Your task to perform on an android device: toggle priority inbox in the gmail app Image 0: 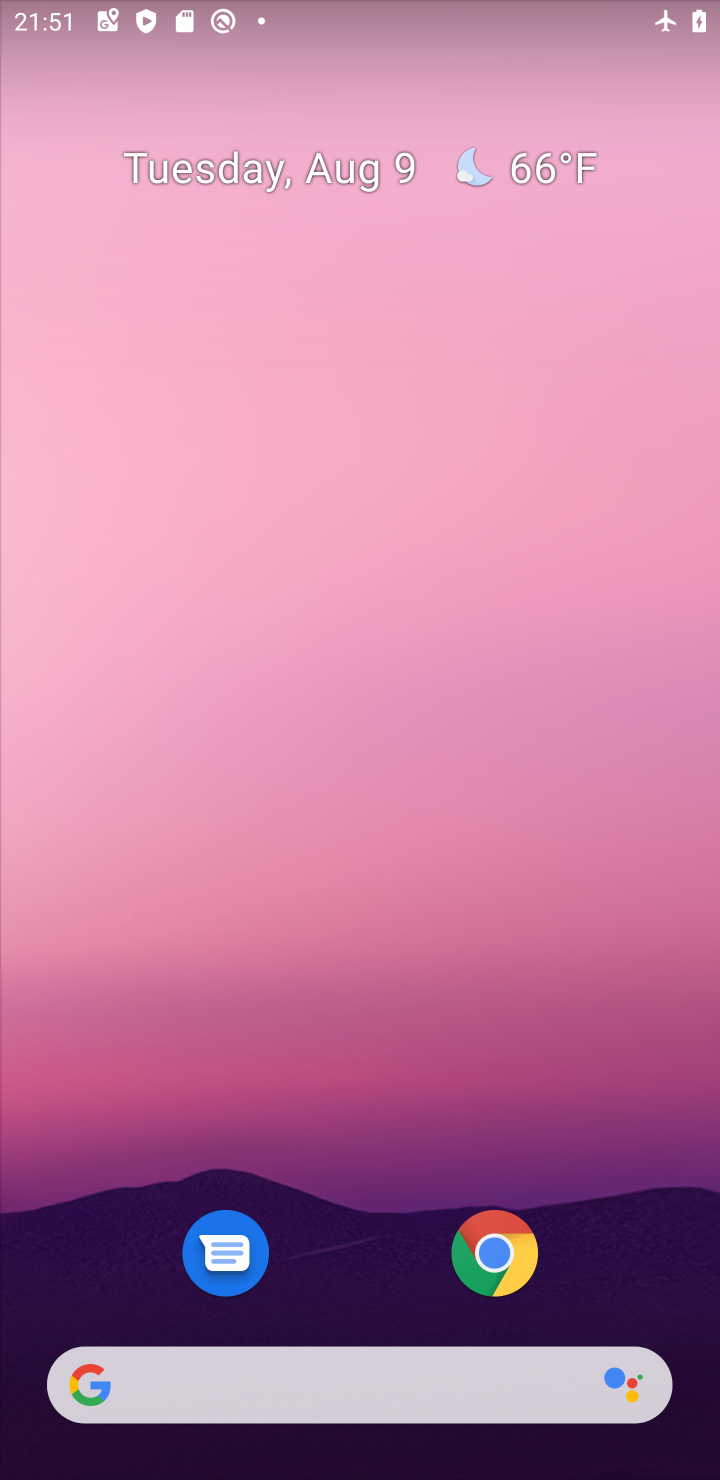
Step 0: drag from (356, 1036) to (371, 184)
Your task to perform on an android device: toggle priority inbox in the gmail app Image 1: 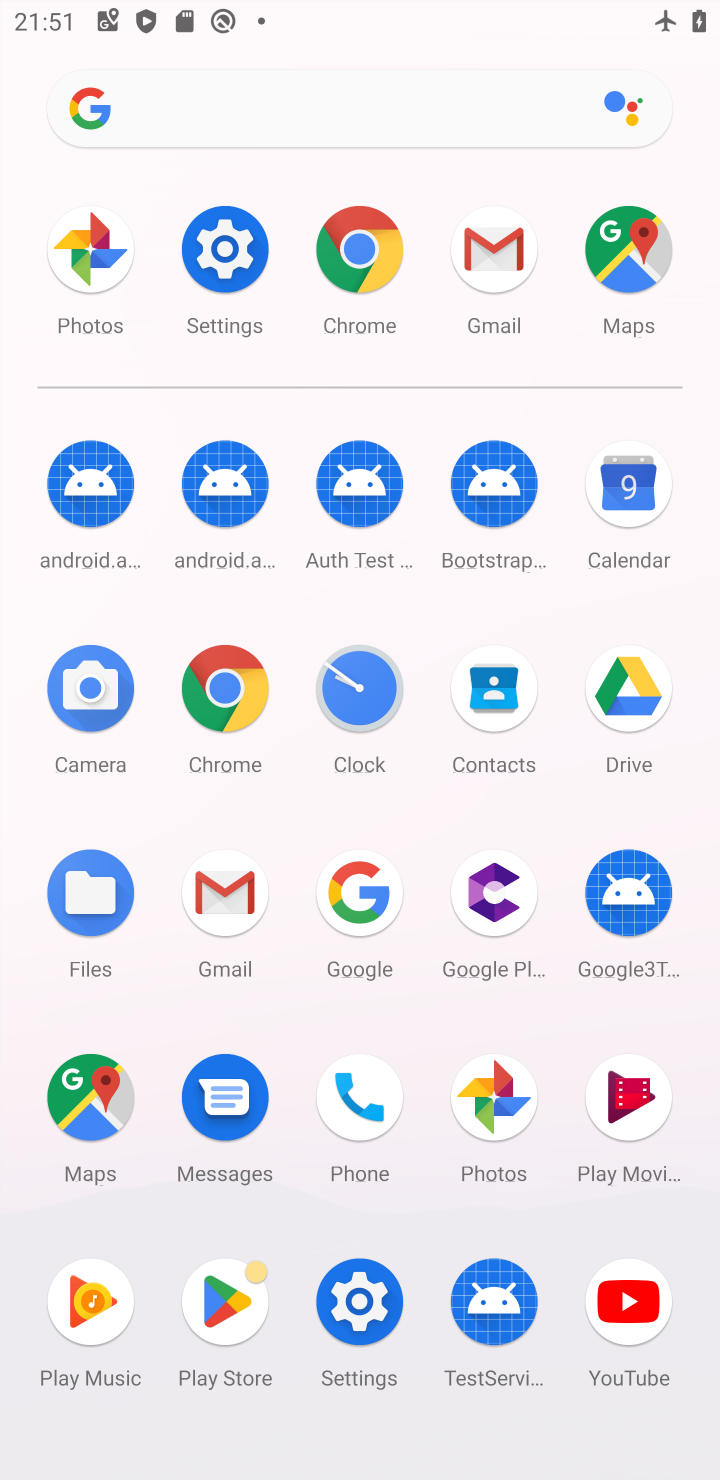
Step 1: click (235, 898)
Your task to perform on an android device: toggle priority inbox in the gmail app Image 2: 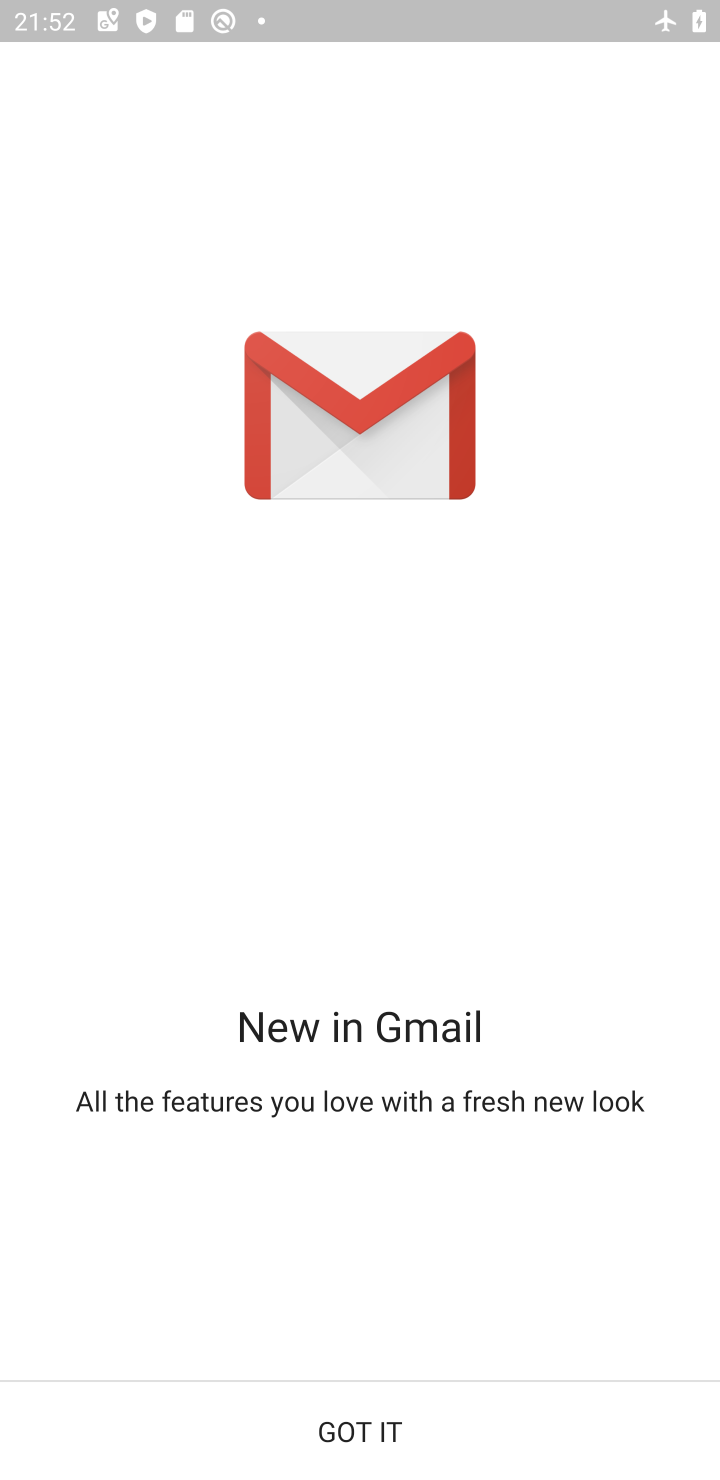
Step 2: click (404, 1425)
Your task to perform on an android device: toggle priority inbox in the gmail app Image 3: 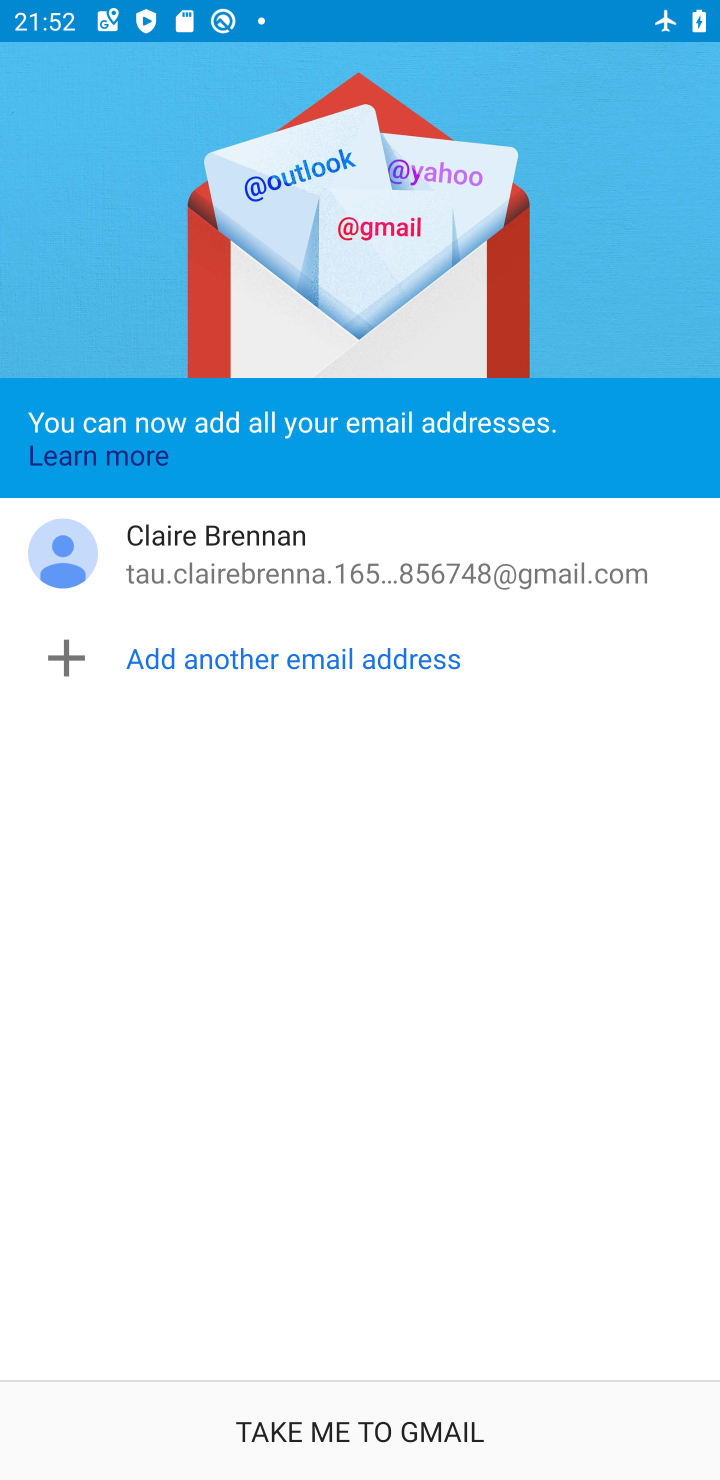
Step 3: click (406, 1417)
Your task to perform on an android device: toggle priority inbox in the gmail app Image 4: 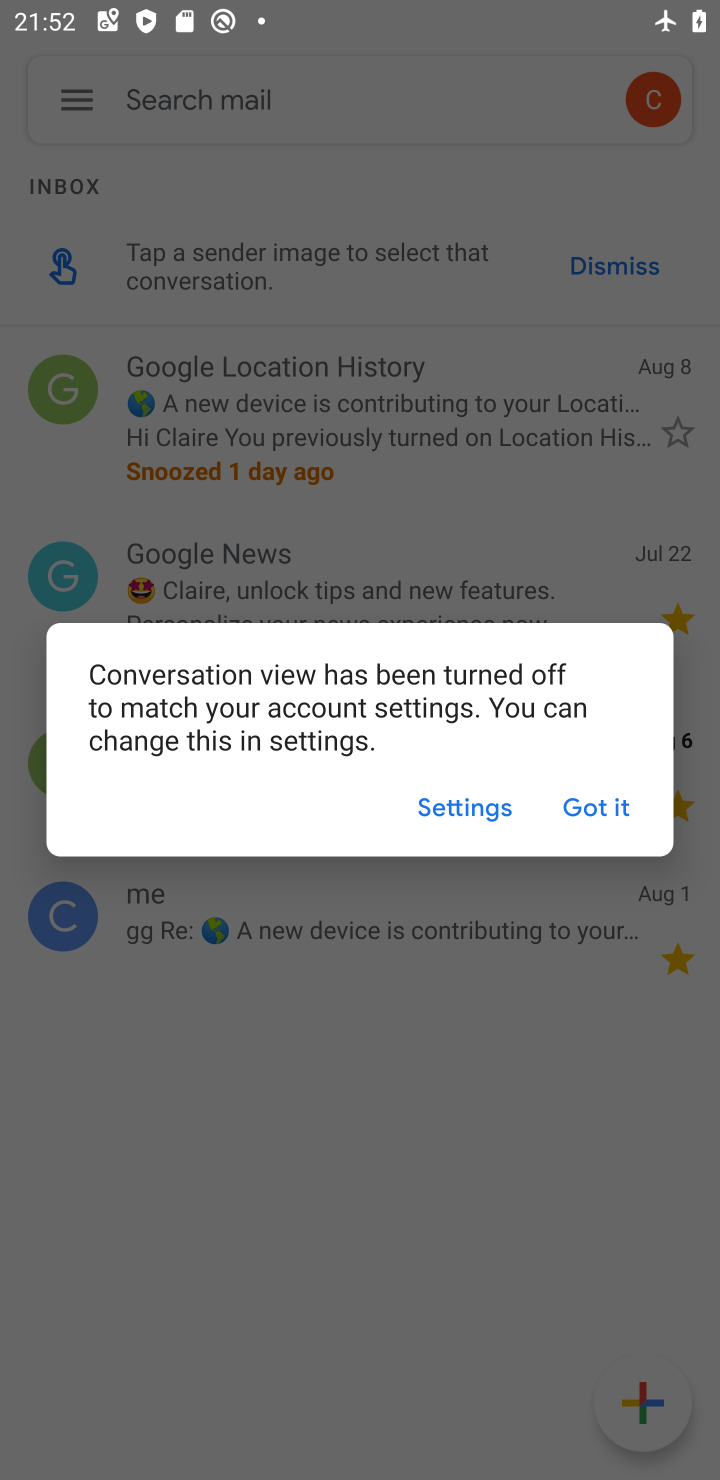
Step 4: click (589, 792)
Your task to perform on an android device: toggle priority inbox in the gmail app Image 5: 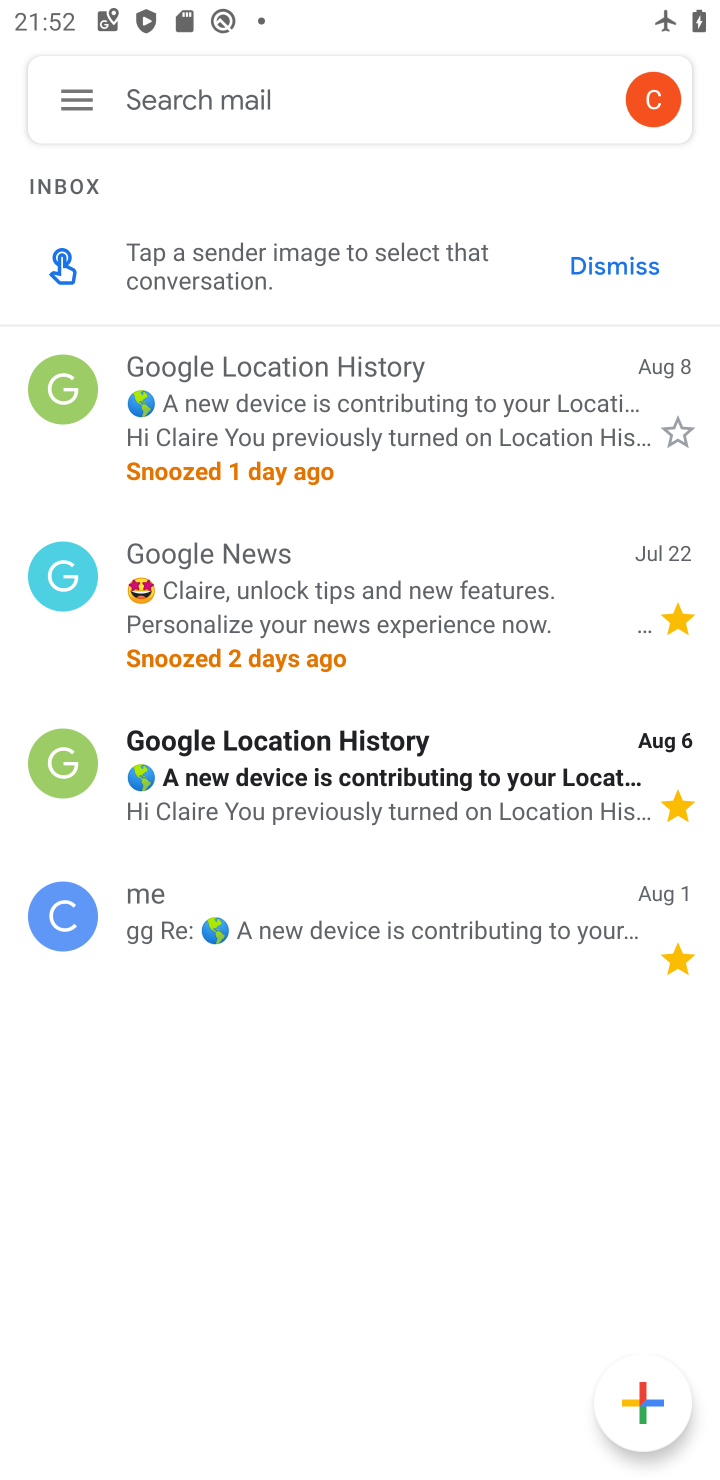
Step 5: click (669, 101)
Your task to perform on an android device: toggle priority inbox in the gmail app Image 6: 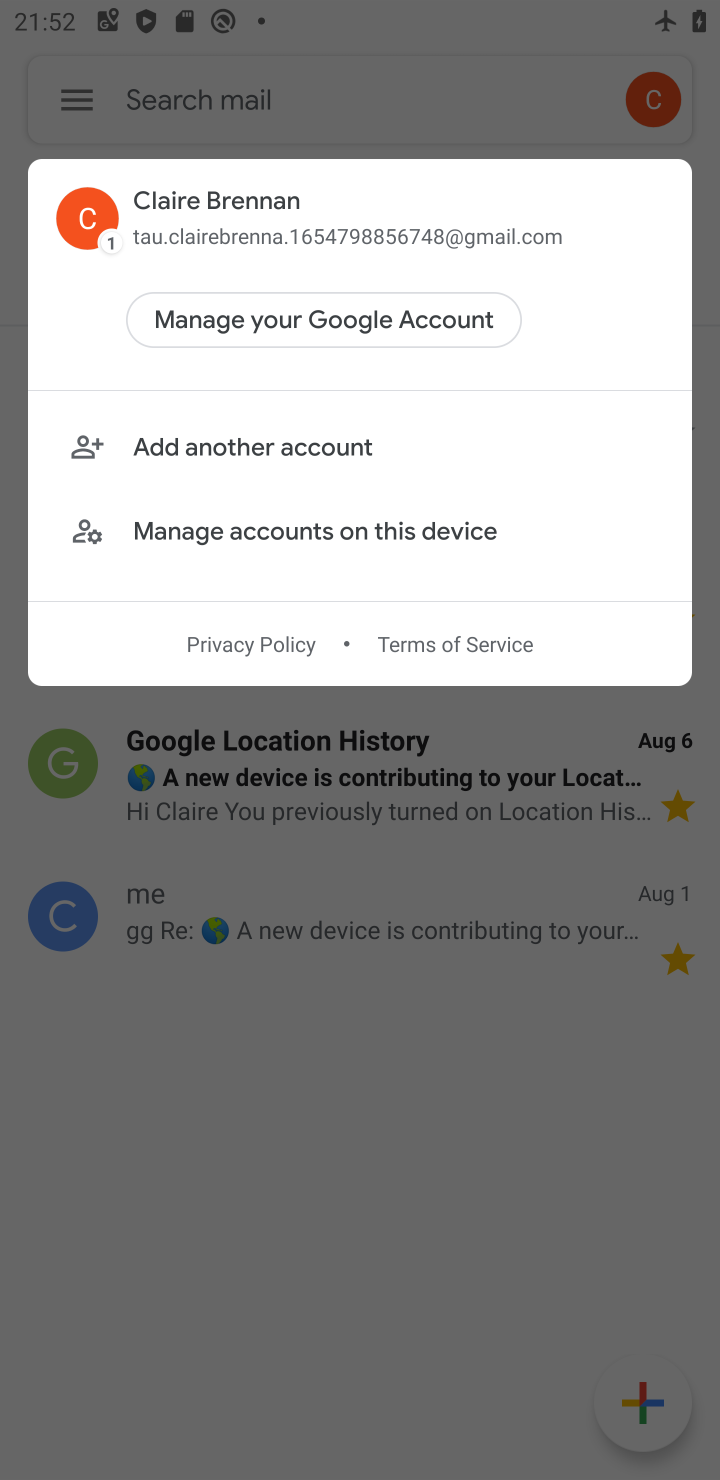
Step 6: click (558, 1045)
Your task to perform on an android device: toggle priority inbox in the gmail app Image 7: 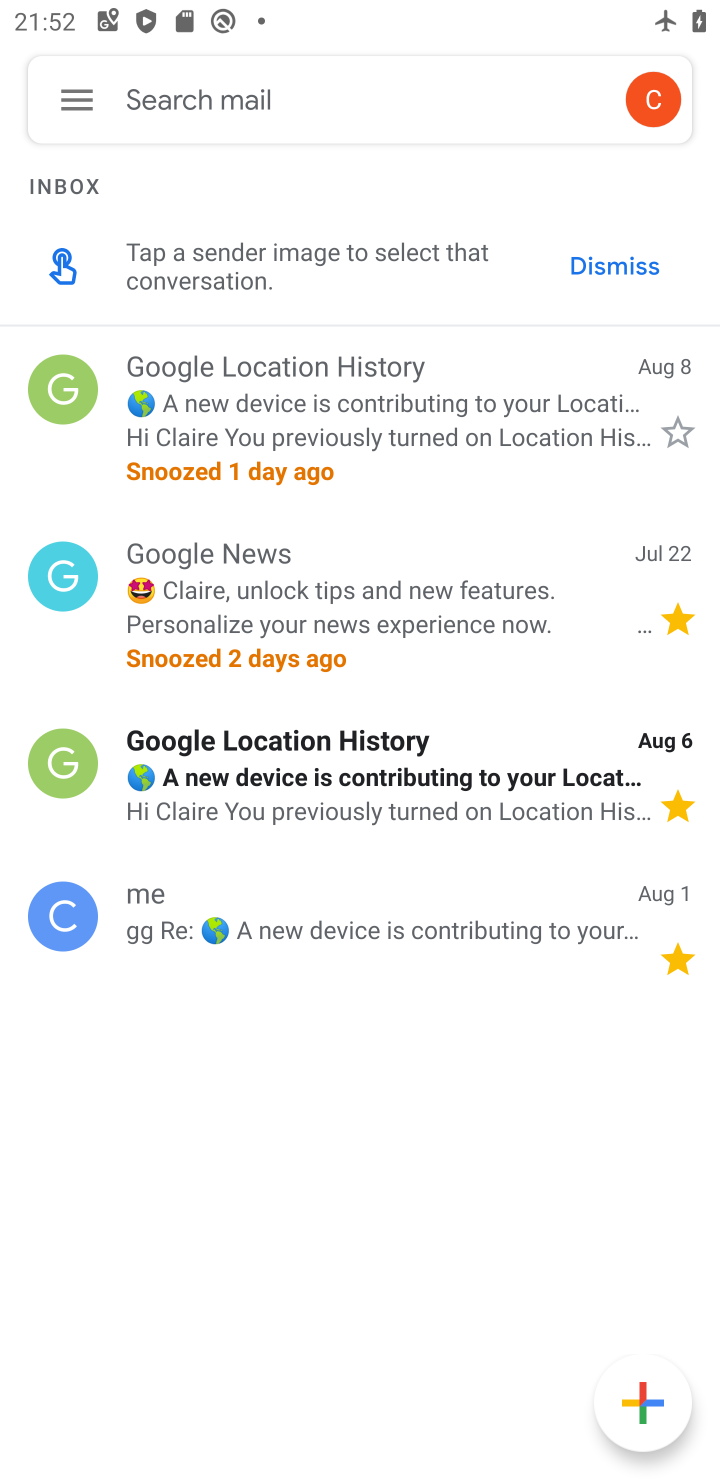
Step 7: click (67, 72)
Your task to perform on an android device: toggle priority inbox in the gmail app Image 8: 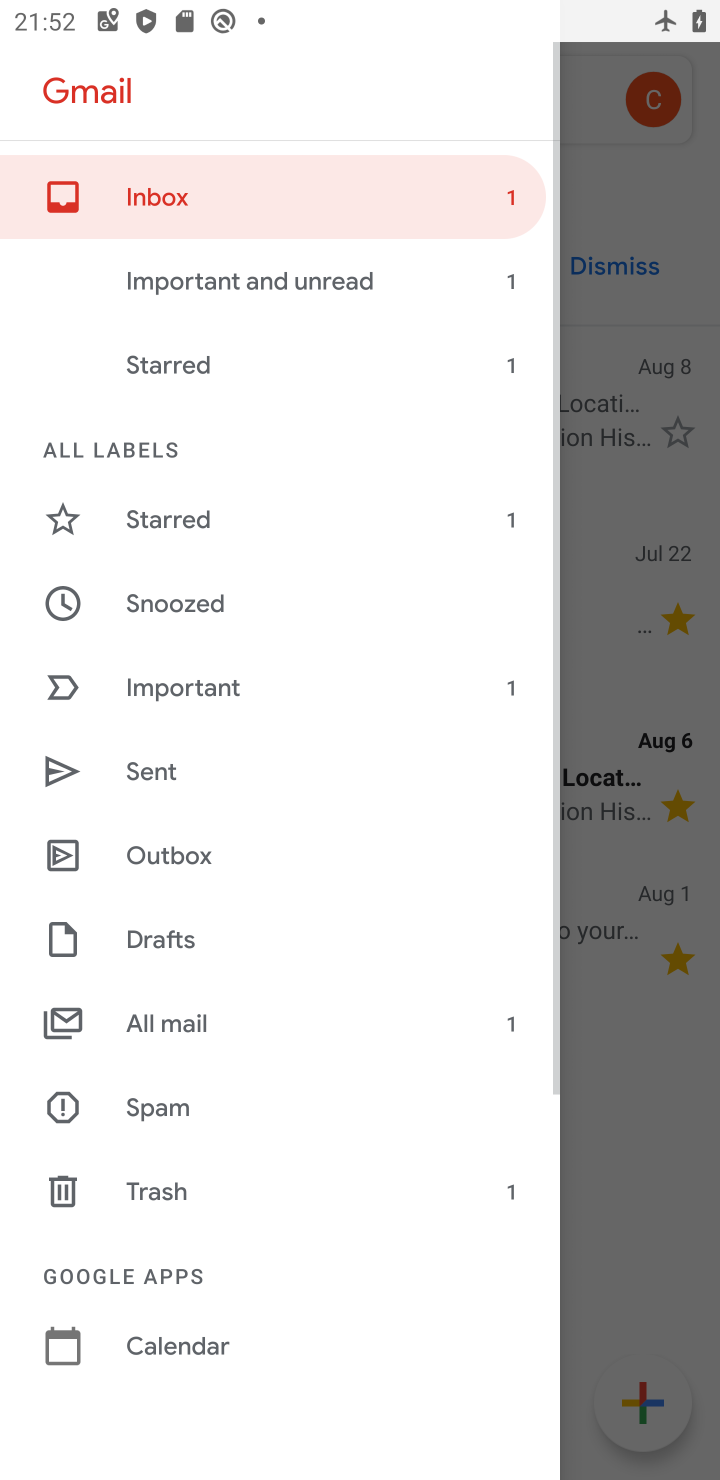
Step 8: drag from (306, 1052) to (470, 367)
Your task to perform on an android device: toggle priority inbox in the gmail app Image 9: 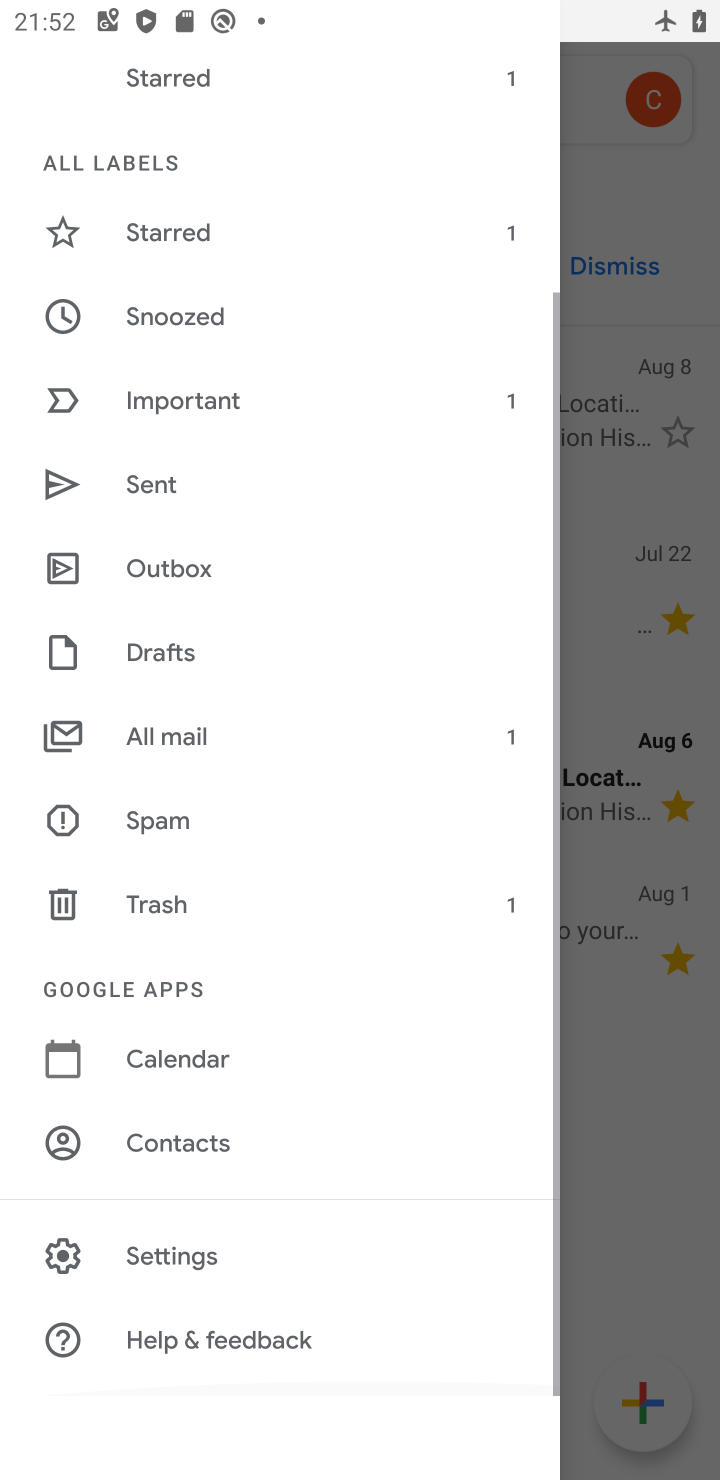
Step 9: click (150, 1264)
Your task to perform on an android device: toggle priority inbox in the gmail app Image 10: 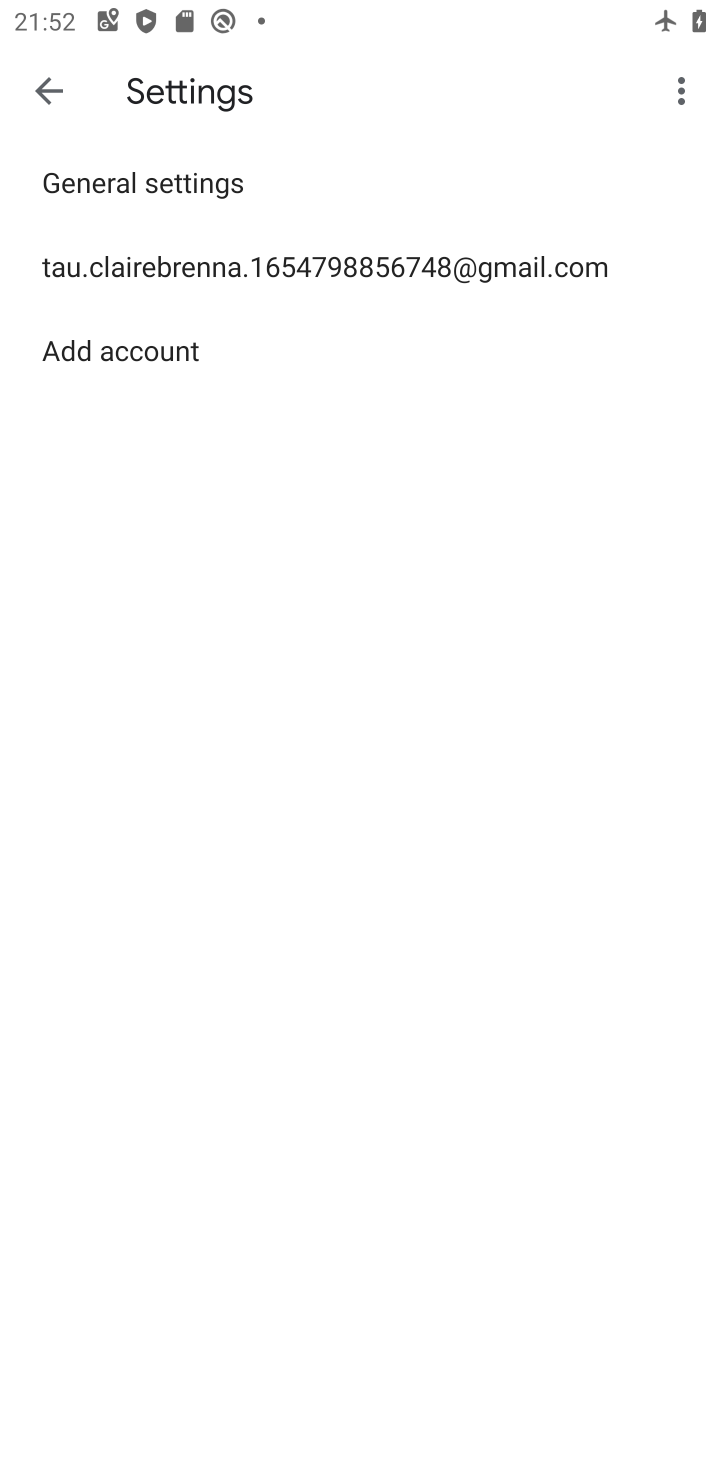
Step 10: click (407, 262)
Your task to perform on an android device: toggle priority inbox in the gmail app Image 11: 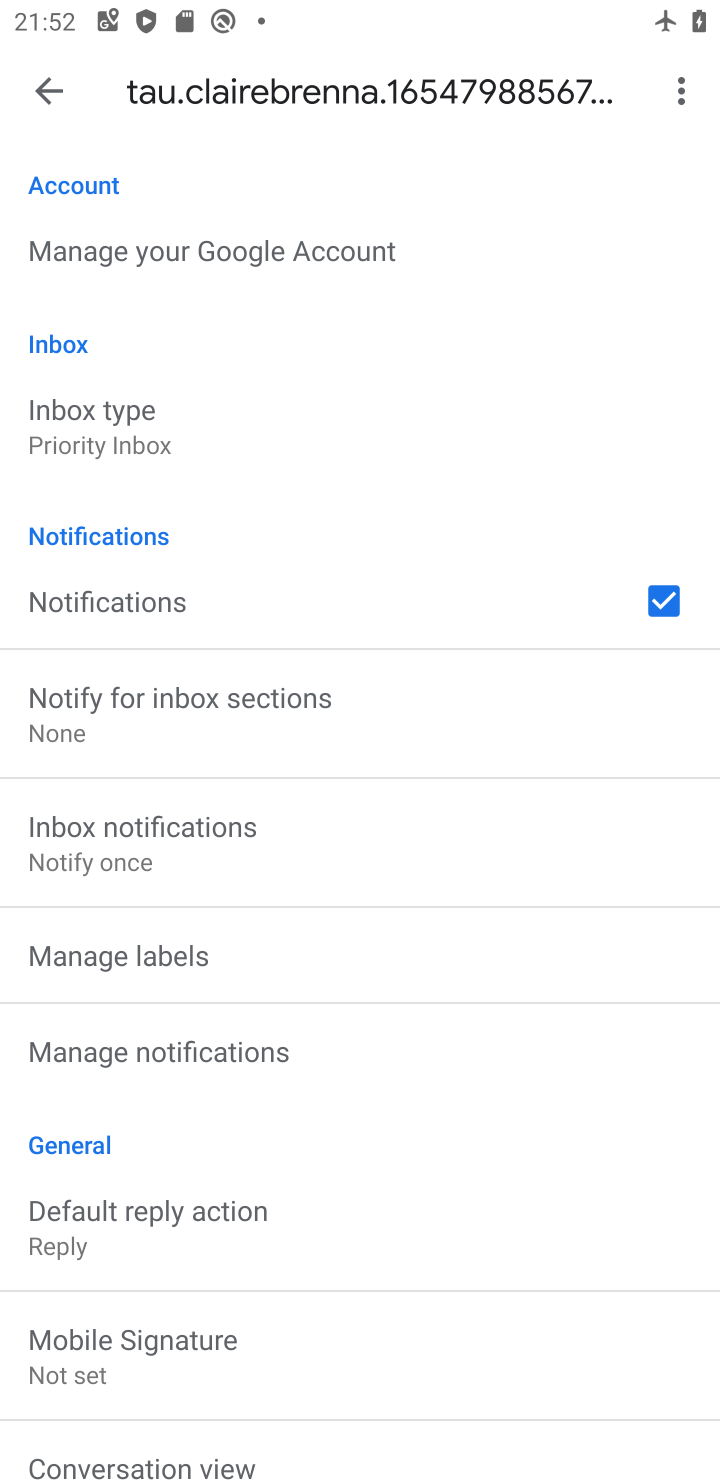
Step 11: click (125, 438)
Your task to perform on an android device: toggle priority inbox in the gmail app Image 12: 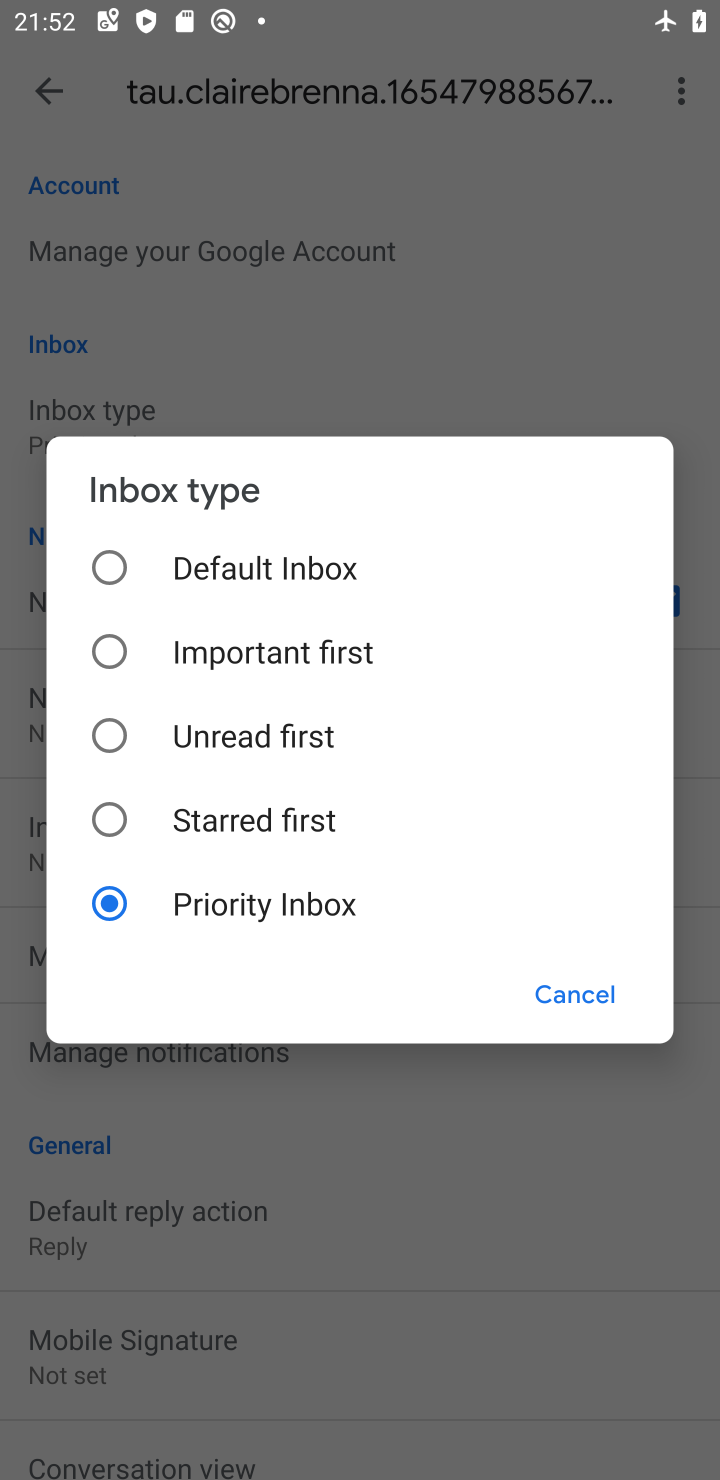
Step 12: click (282, 562)
Your task to perform on an android device: toggle priority inbox in the gmail app Image 13: 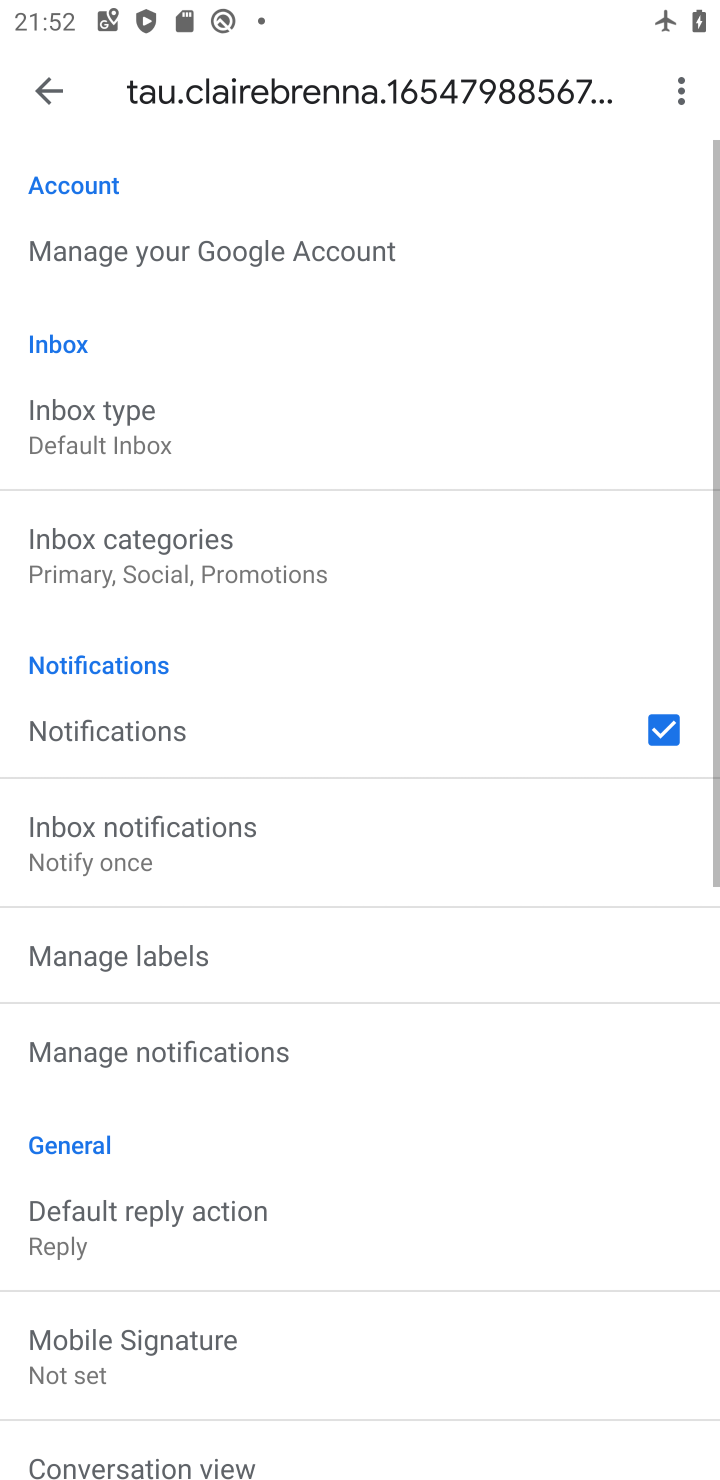
Step 13: task complete